Your task to perform on an android device: Open the web browser Image 0: 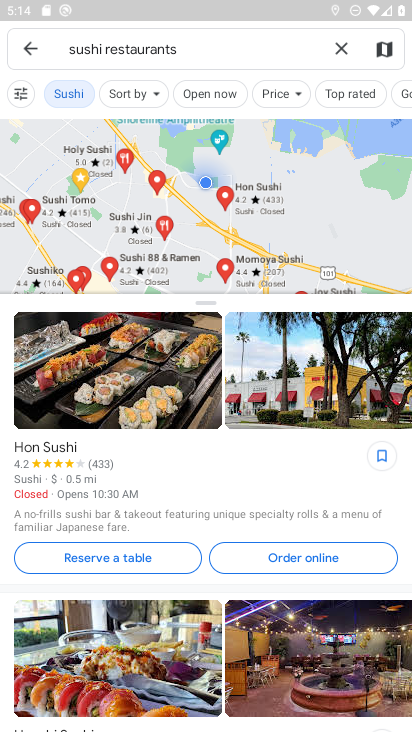
Step 0: press home button
Your task to perform on an android device: Open the web browser Image 1: 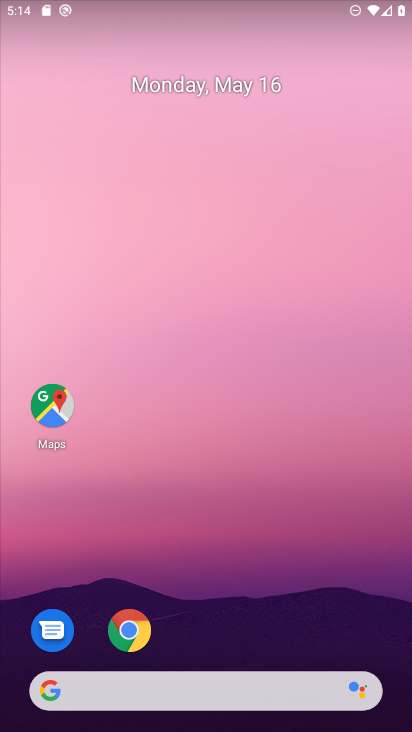
Step 1: click (137, 634)
Your task to perform on an android device: Open the web browser Image 2: 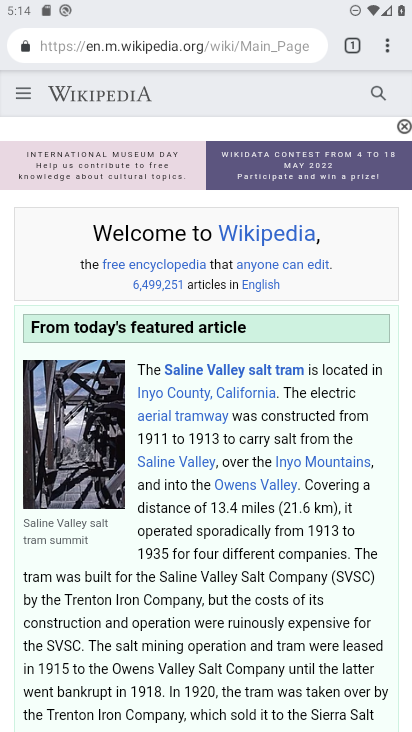
Step 2: click (166, 42)
Your task to perform on an android device: Open the web browser Image 3: 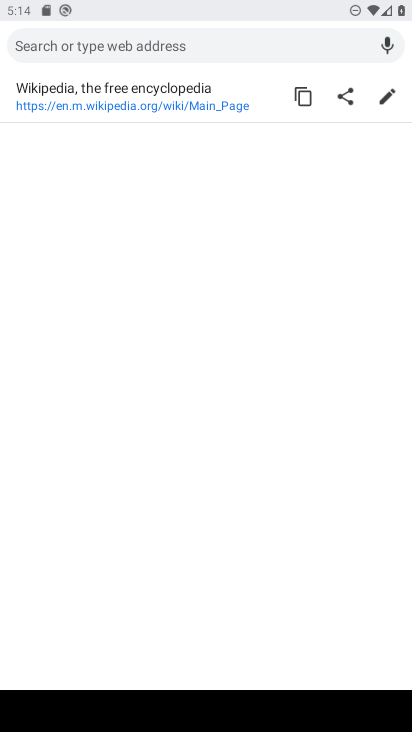
Step 3: type " web browser"
Your task to perform on an android device: Open the web browser Image 4: 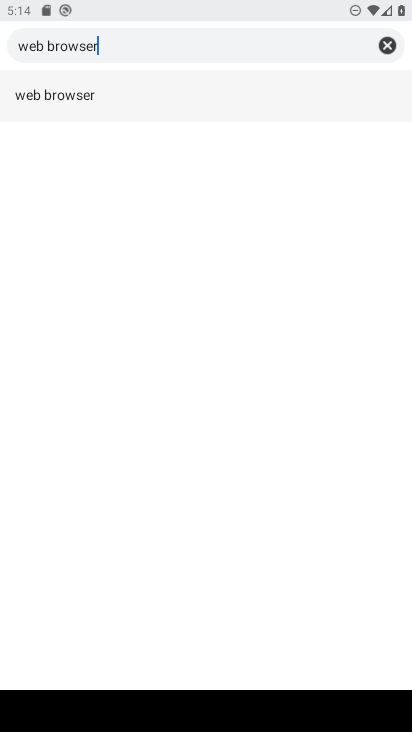
Step 4: type ""
Your task to perform on an android device: Open the web browser Image 5: 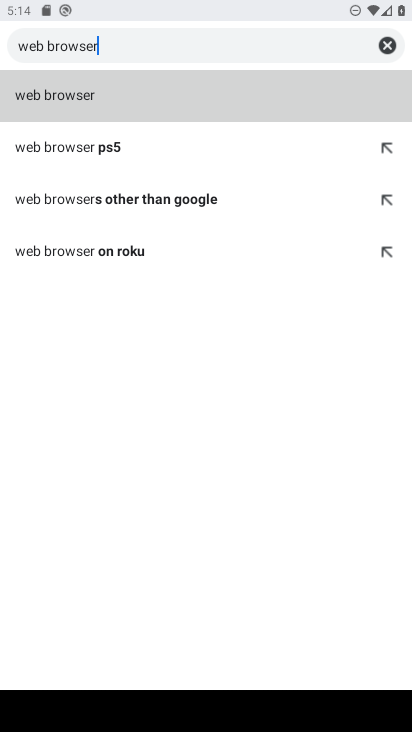
Step 5: click (107, 114)
Your task to perform on an android device: Open the web browser Image 6: 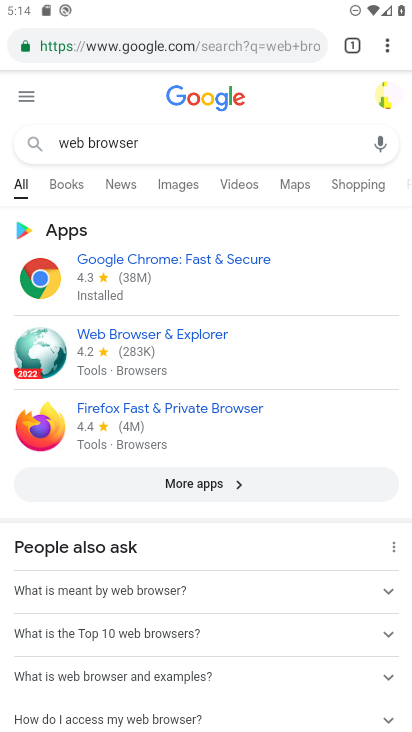
Step 6: task complete